Your task to perform on an android device: Search for seafood restaurants on Google Maps Image 0: 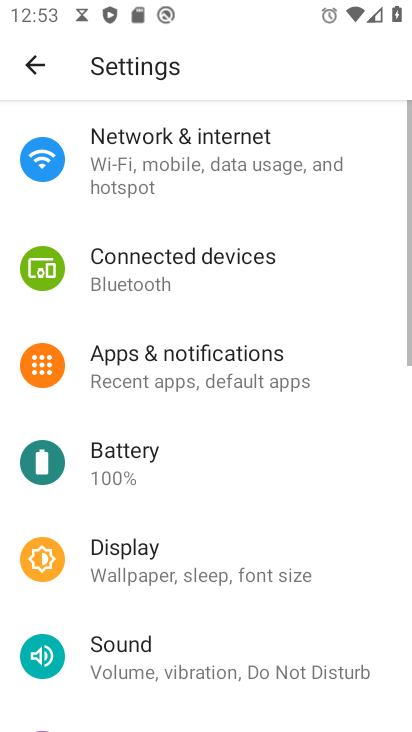
Step 0: press home button
Your task to perform on an android device: Search for seafood restaurants on Google Maps Image 1: 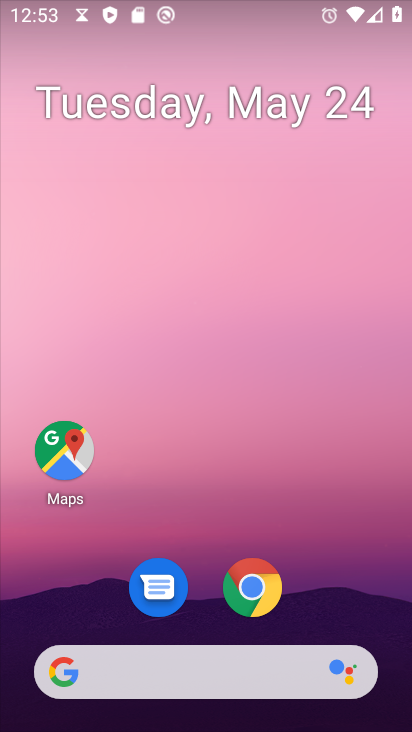
Step 1: click (56, 469)
Your task to perform on an android device: Search for seafood restaurants on Google Maps Image 2: 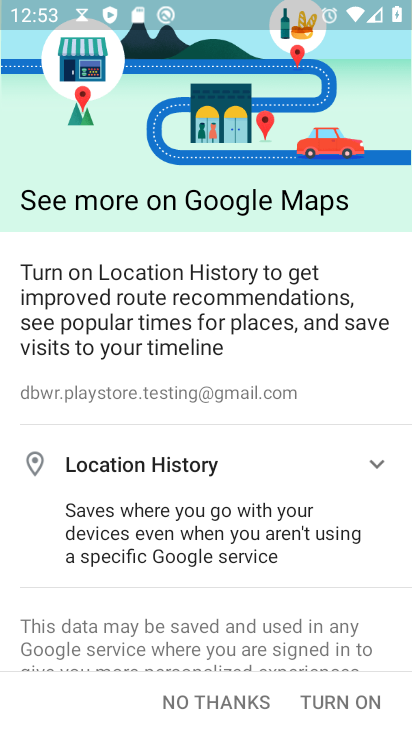
Step 2: click (344, 706)
Your task to perform on an android device: Search for seafood restaurants on Google Maps Image 3: 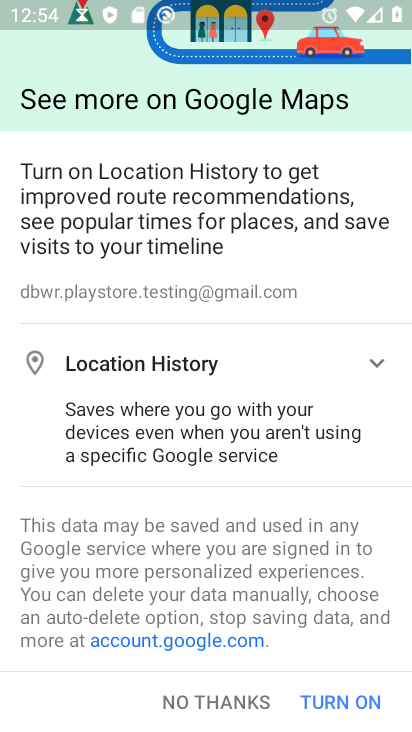
Step 3: click (344, 706)
Your task to perform on an android device: Search for seafood restaurants on Google Maps Image 4: 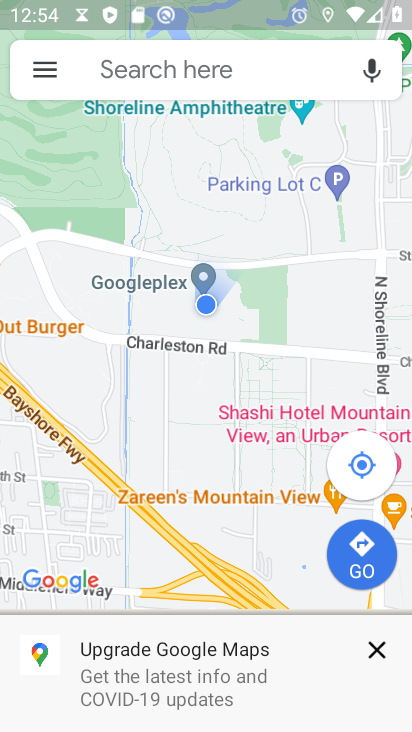
Step 4: click (176, 59)
Your task to perform on an android device: Search for seafood restaurants on Google Maps Image 5: 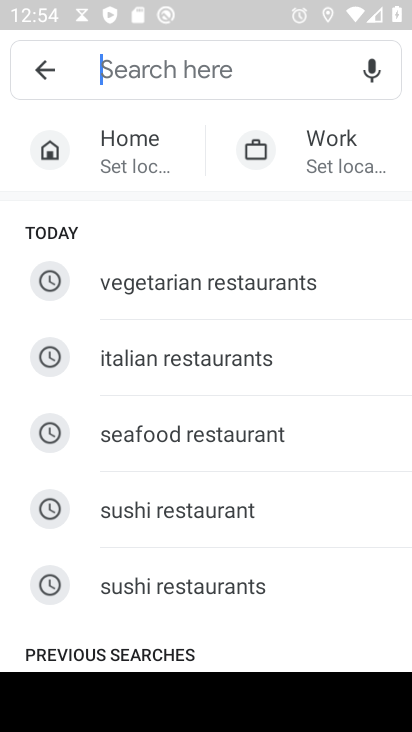
Step 5: click (233, 443)
Your task to perform on an android device: Search for seafood restaurants on Google Maps Image 6: 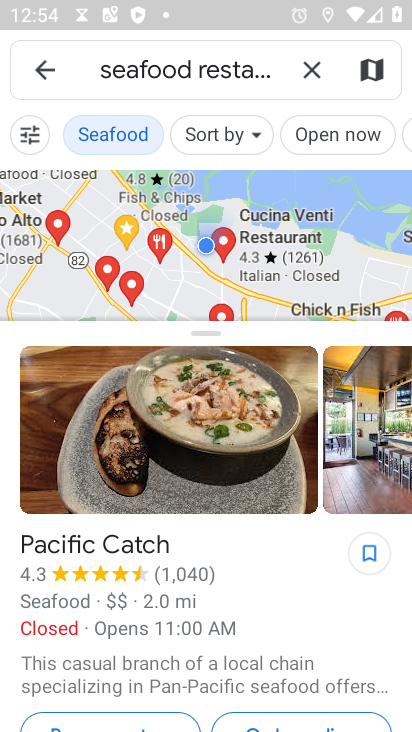
Step 6: task complete